Your task to perform on an android device: open a bookmark in the chrome app Image 0: 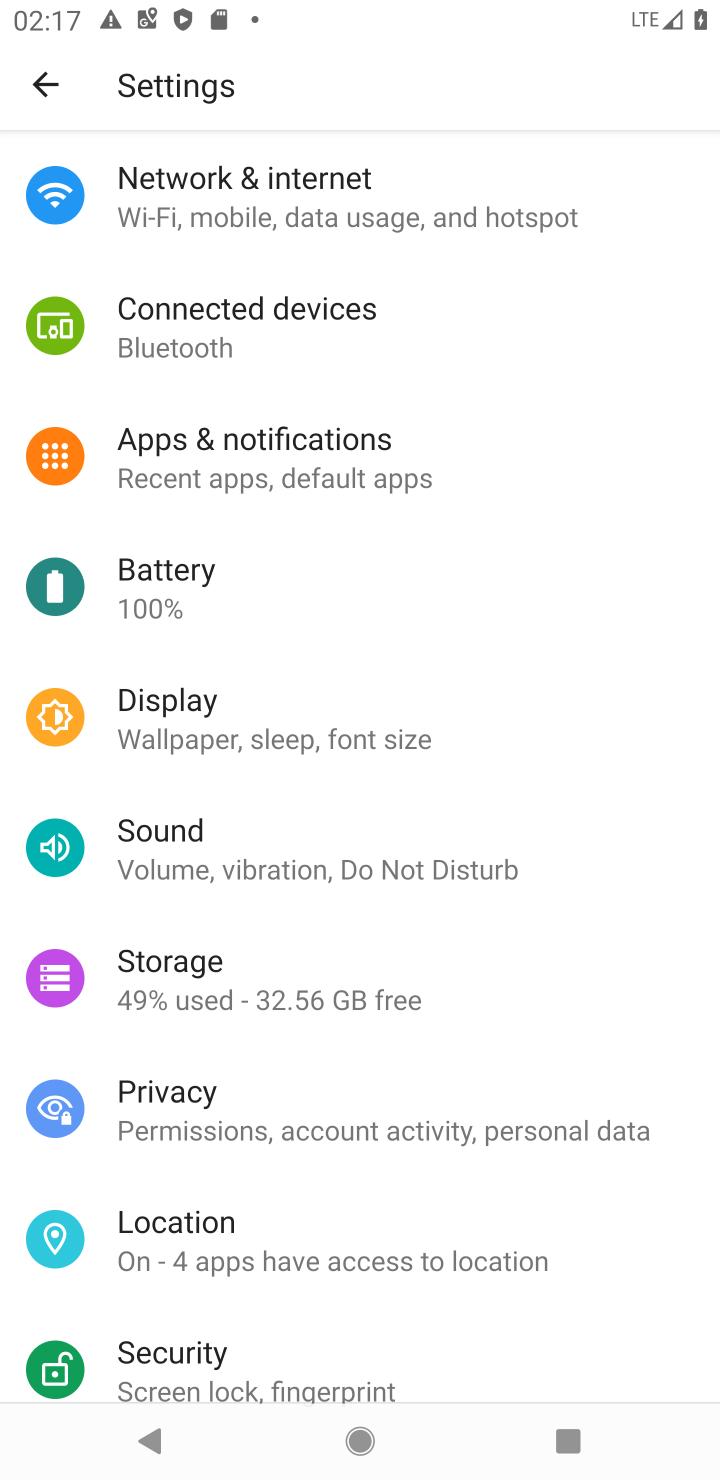
Step 0: click (349, 1432)
Your task to perform on an android device: open a bookmark in the chrome app Image 1: 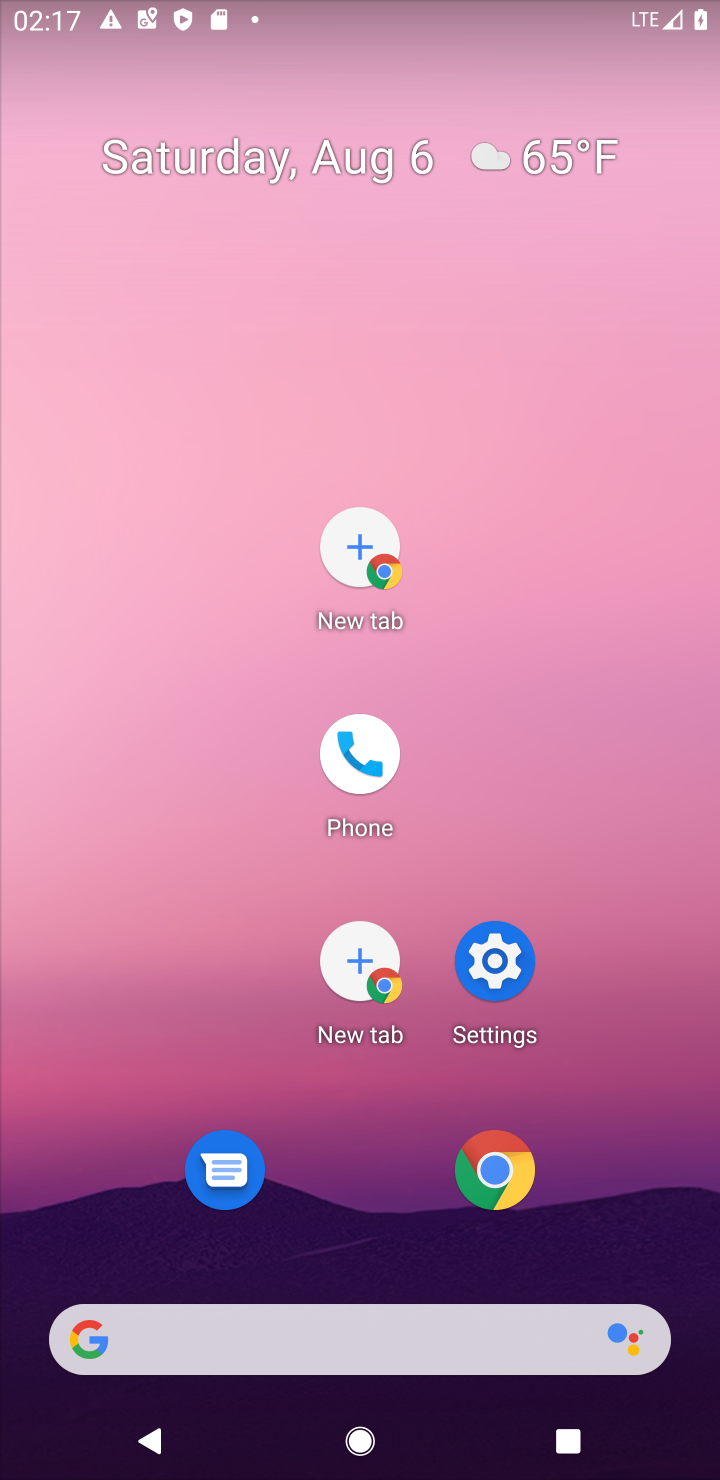
Step 1: click (510, 1156)
Your task to perform on an android device: open a bookmark in the chrome app Image 2: 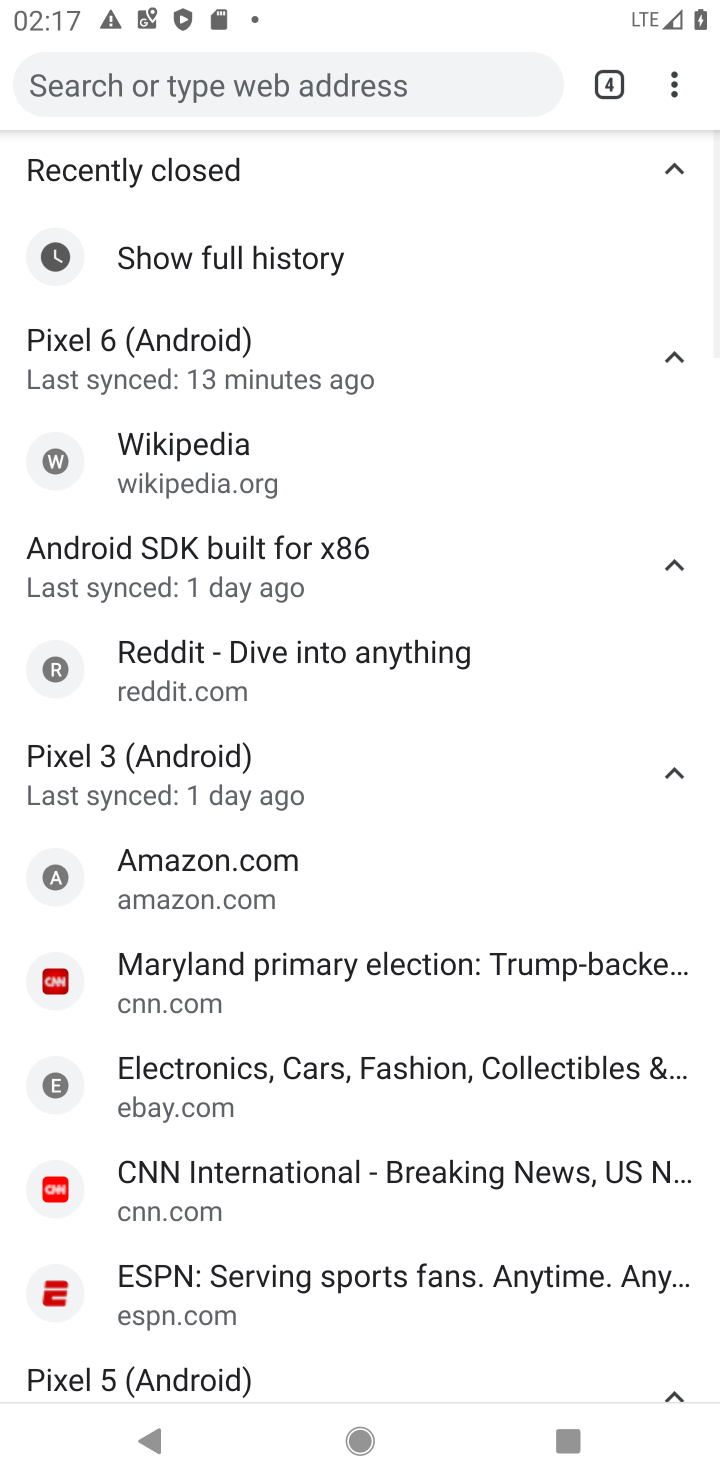
Step 2: click (676, 81)
Your task to perform on an android device: open a bookmark in the chrome app Image 3: 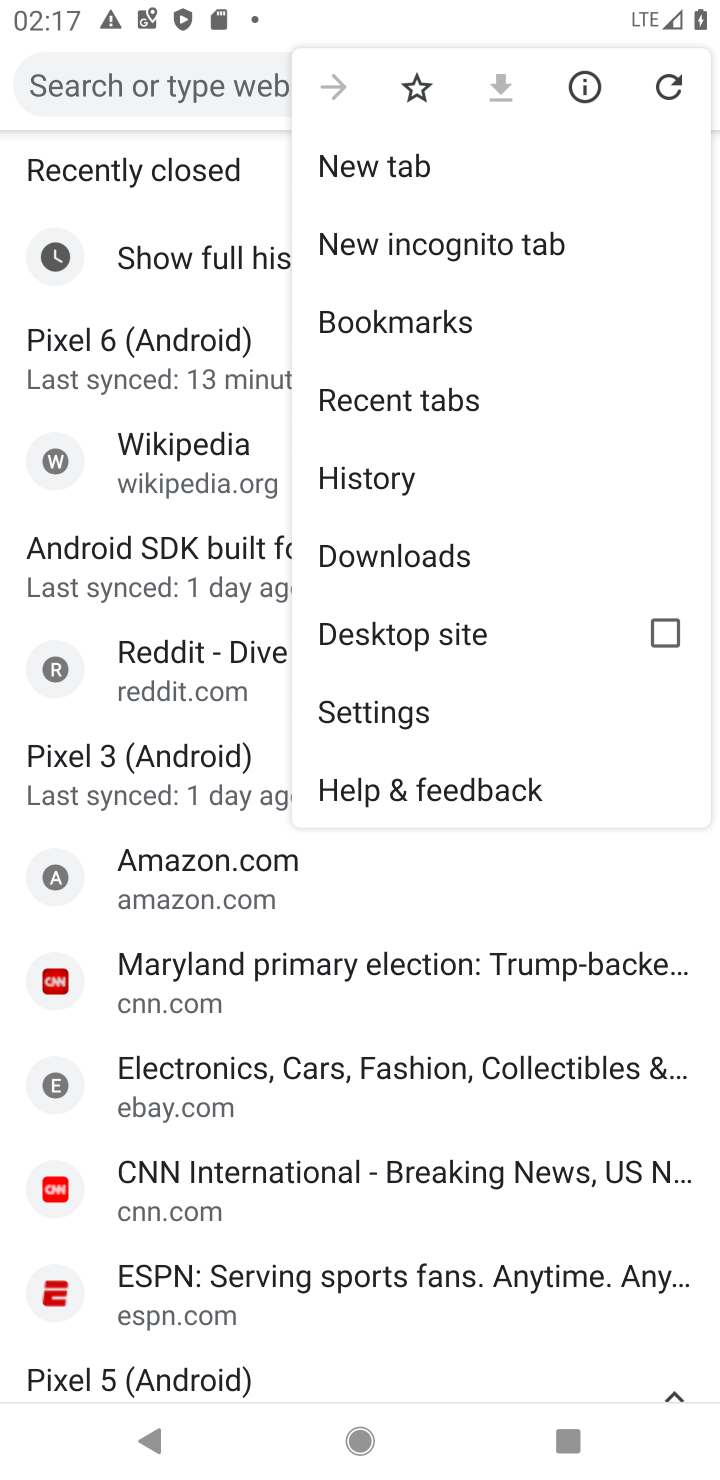
Step 3: click (403, 314)
Your task to perform on an android device: open a bookmark in the chrome app Image 4: 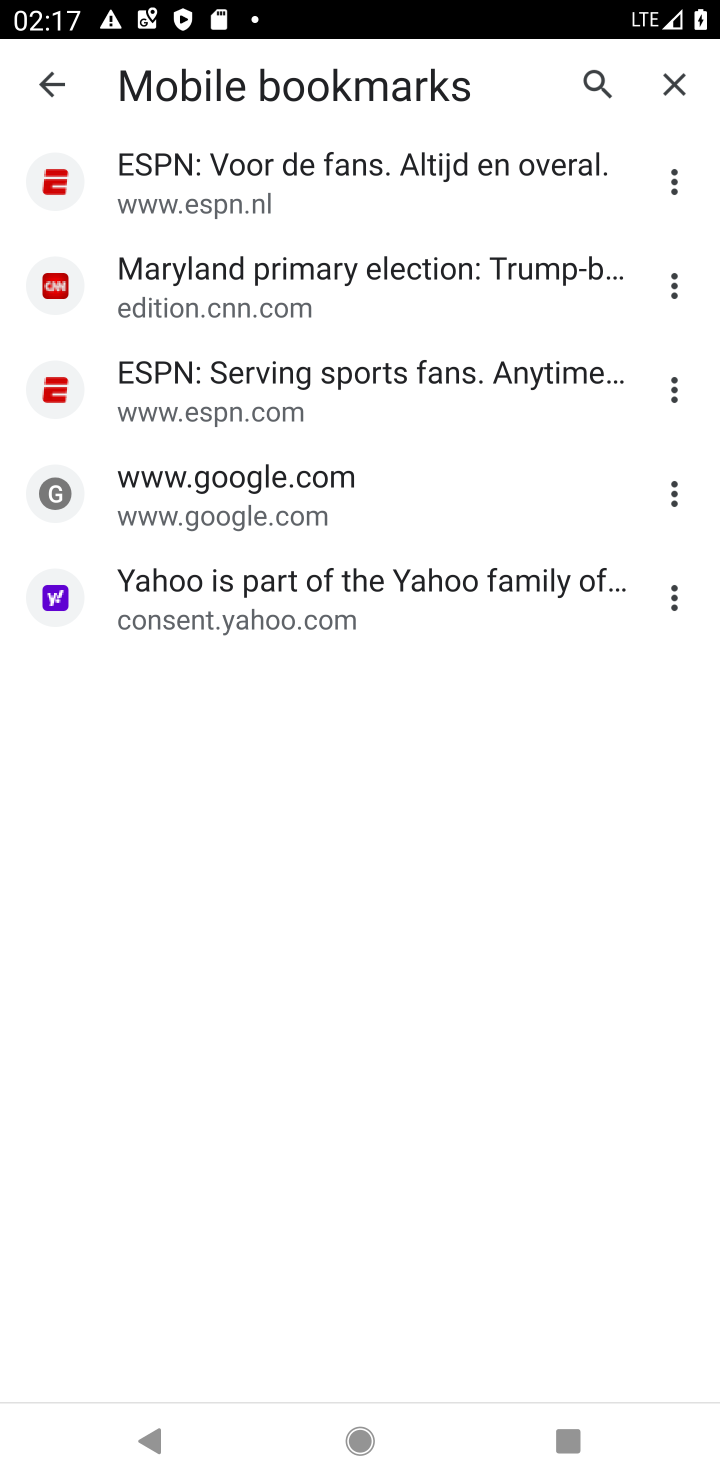
Step 4: task complete